Your task to perform on an android device: toggle wifi Image 0: 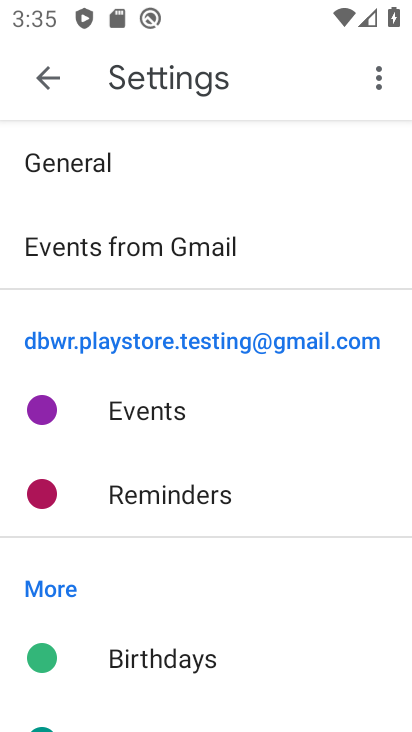
Step 0: press home button
Your task to perform on an android device: toggle wifi Image 1: 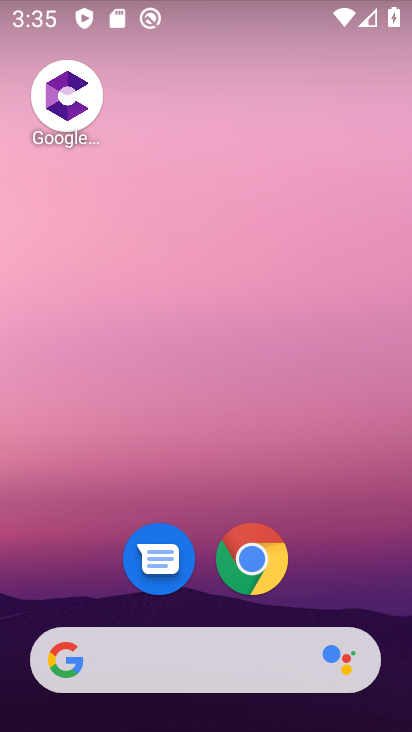
Step 1: drag from (201, 487) to (203, 62)
Your task to perform on an android device: toggle wifi Image 2: 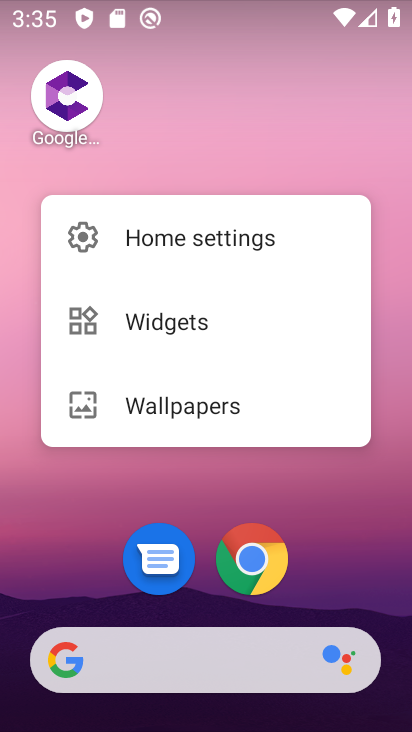
Step 2: drag from (354, 567) to (288, 76)
Your task to perform on an android device: toggle wifi Image 3: 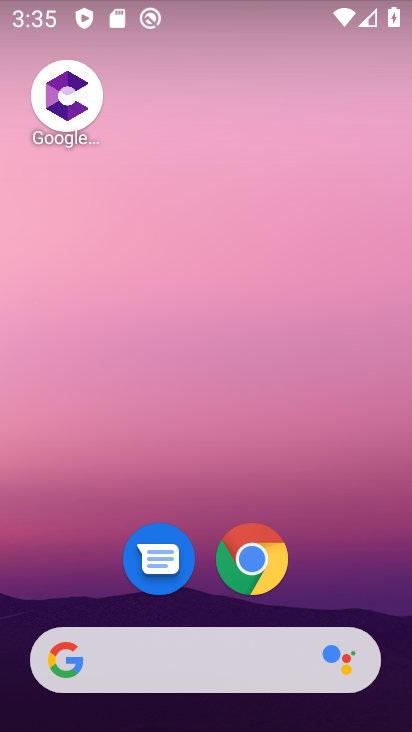
Step 3: drag from (313, 539) to (233, 16)
Your task to perform on an android device: toggle wifi Image 4: 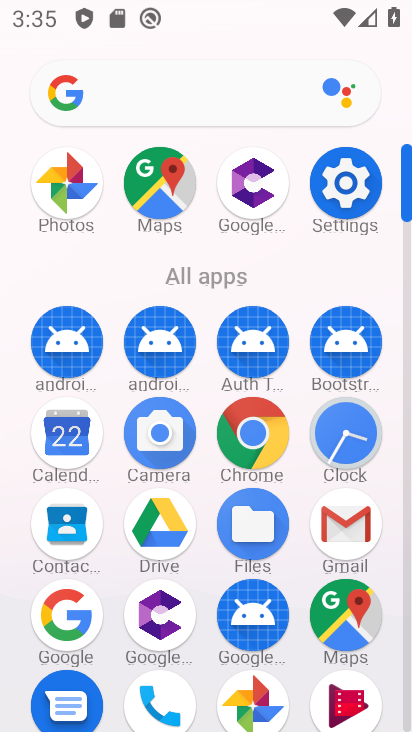
Step 4: click (339, 180)
Your task to perform on an android device: toggle wifi Image 5: 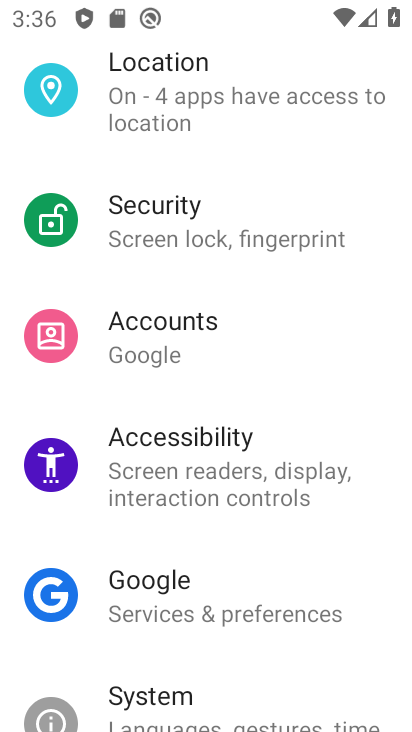
Step 5: drag from (269, 162) to (284, 590)
Your task to perform on an android device: toggle wifi Image 6: 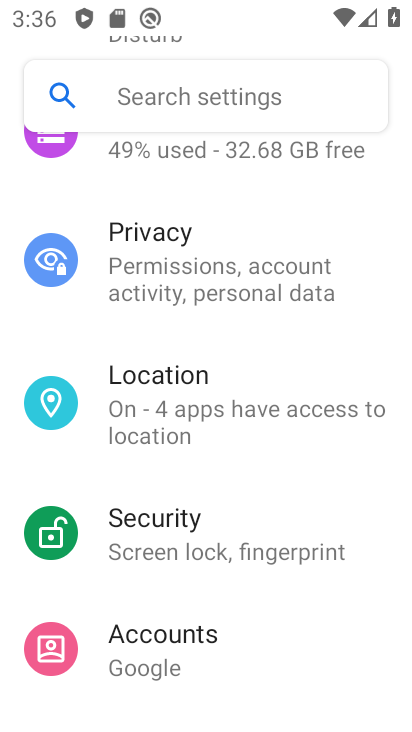
Step 6: drag from (243, 230) to (223, 511)
Your task to perform on an android device: toggle wifi Image 7: 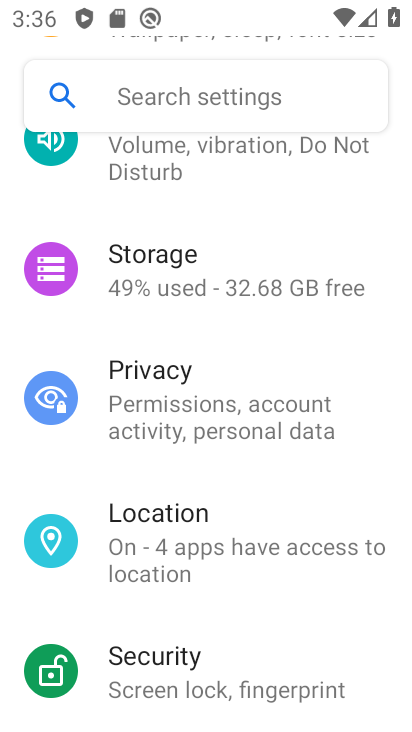
Step 7: drag from (252, 203) to (230, 638)
Your task to perform on an android device: toggle wifi Image 8: 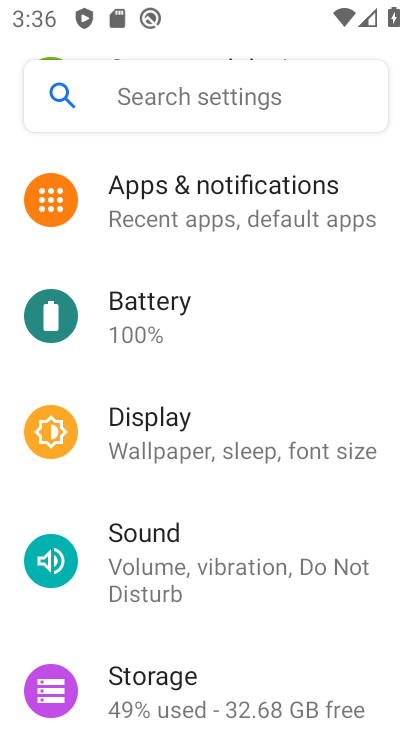
Step 8: drag from (236, 283) to (237, 688)
Your task to perform on an android device: toggle wifi Image 9: 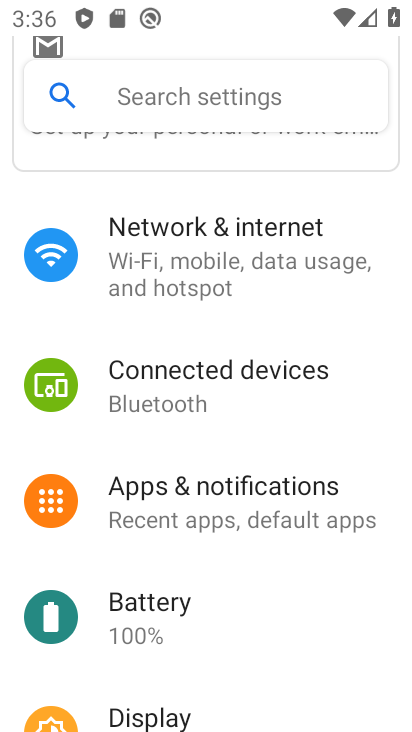
Step 9: click (193, 252)
Your task to perform on an android device: toggle wifi Image 10: 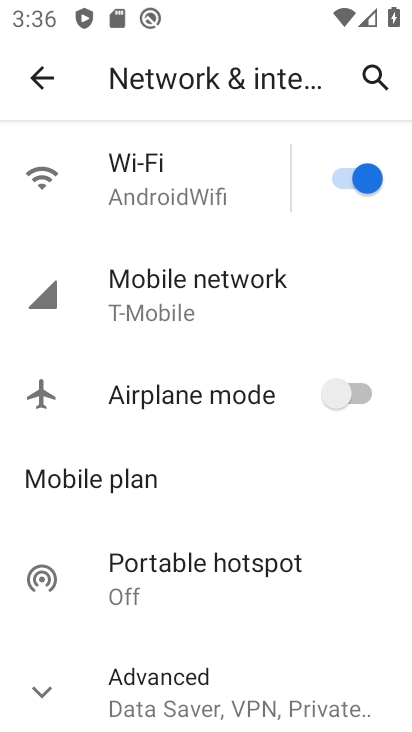
Step 10: click (346, 183)
Your task to perform on an android device: toggle wifi Image 11: 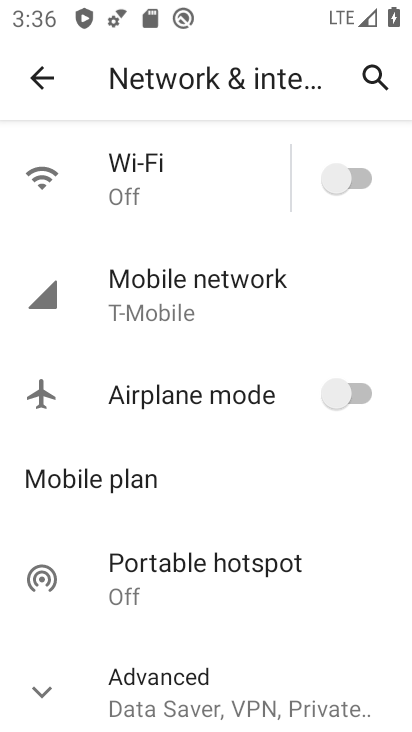
Step 11: task complete